Your task to perform on an android device: turn on airplane mode Image 0: 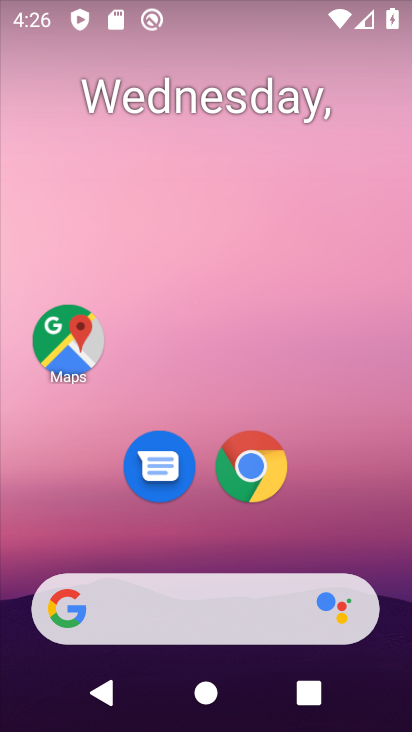
Step 0: drag from (344, 536) to (310, 38)
Your task to perform on an android device: turn on airplane mode Image 1: 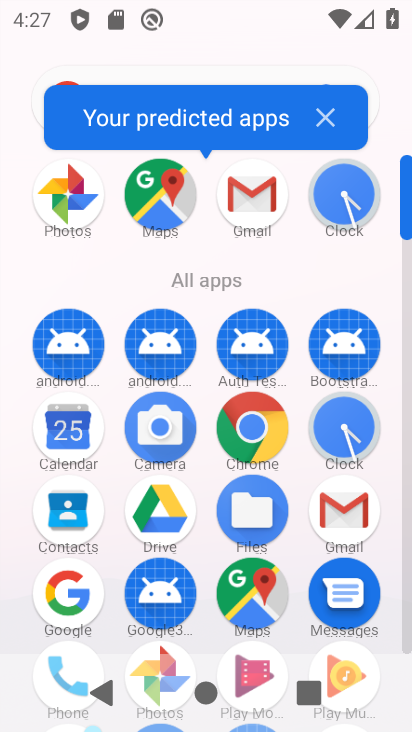
Step 1: drag from (294, 282) to (374, 66)
Your task to perform on an android device: turn on airplane mode Image 2: 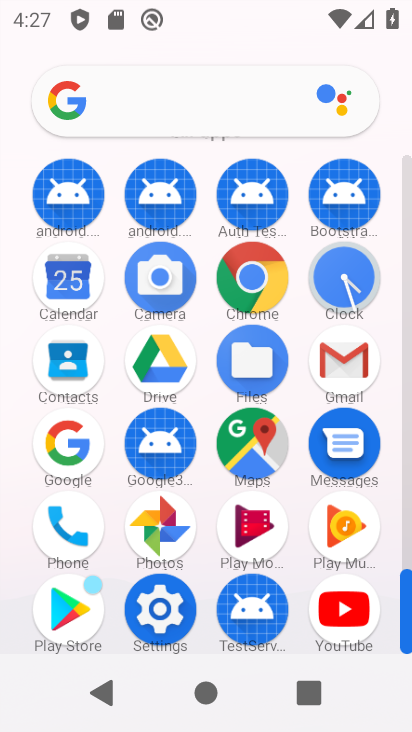
Step 2: click (163, 608)
Your task to perform on an android device: turn on airplane mode Image 3: 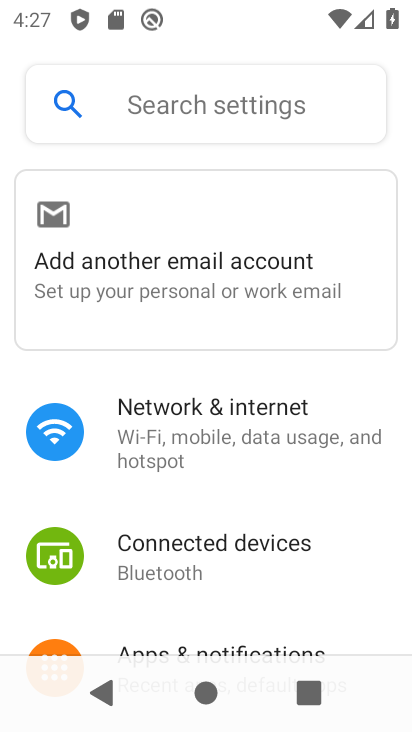
Step 3: click (236, 405)
Your task to perform on an android device: turn on airplane mode Image 4: 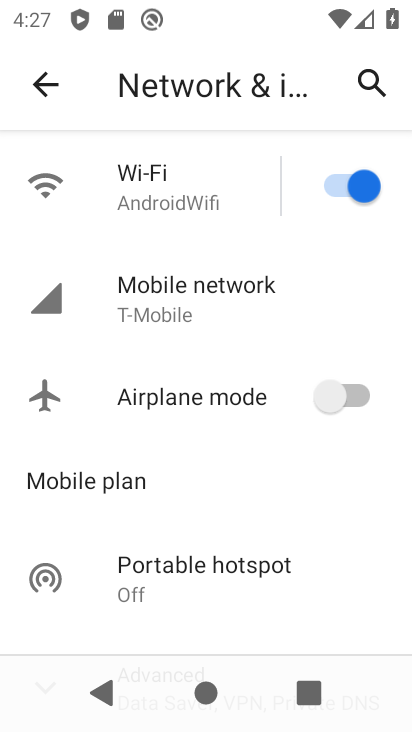
Step 4: click (331, 394)
Your task to perform on an android device: turn on airplane mode Image 5: 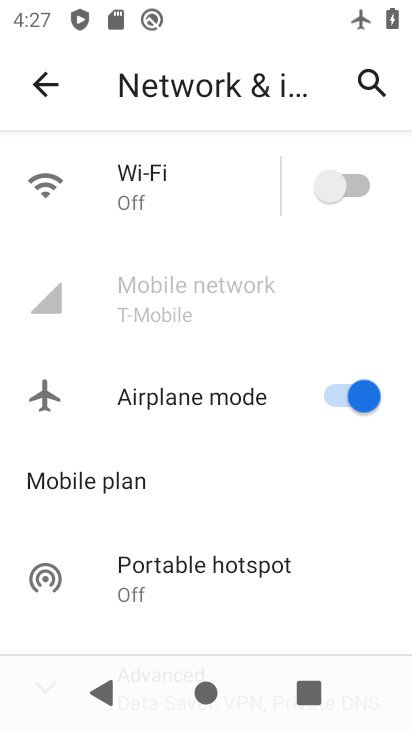
Step 5: task complete